Your task to perform on an android device: Go to display settings Image 0: 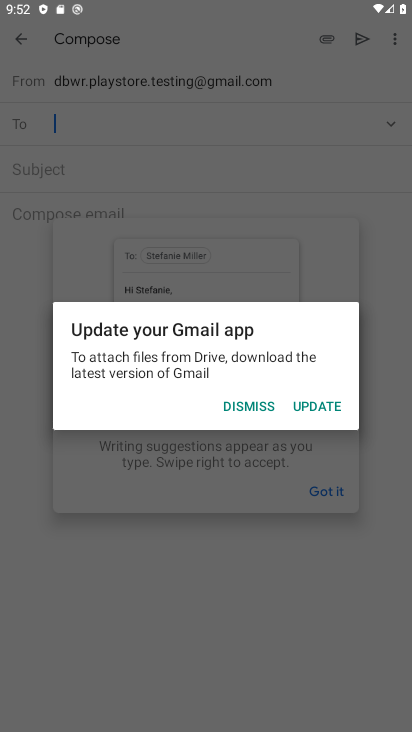
Step 0: press home button
Your task to perform on an android device: Go to display settings Image 1: 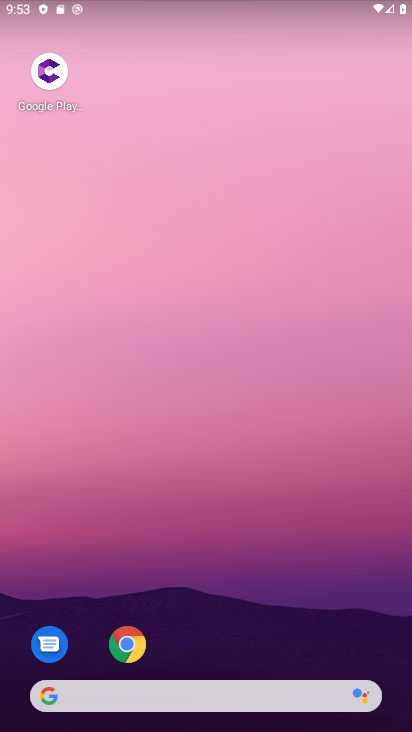
Step 1: drag from (202, 627) to (339, 156)
Your task to perform on an android device: Go to display settings Image 2: 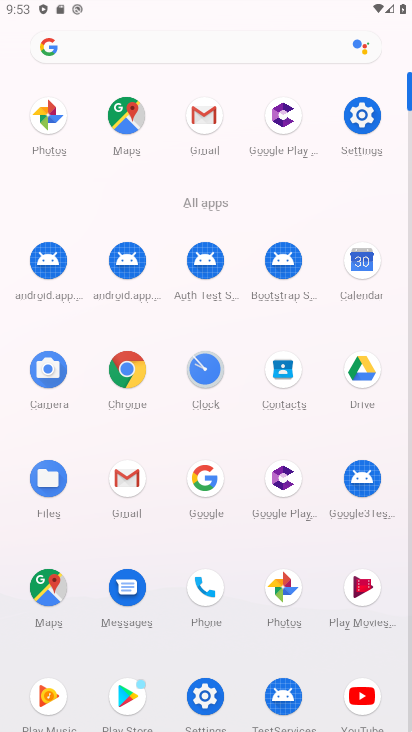
Step 2: click (364, 126)
Your task to perform on an android device: Go to display settings Image 3: 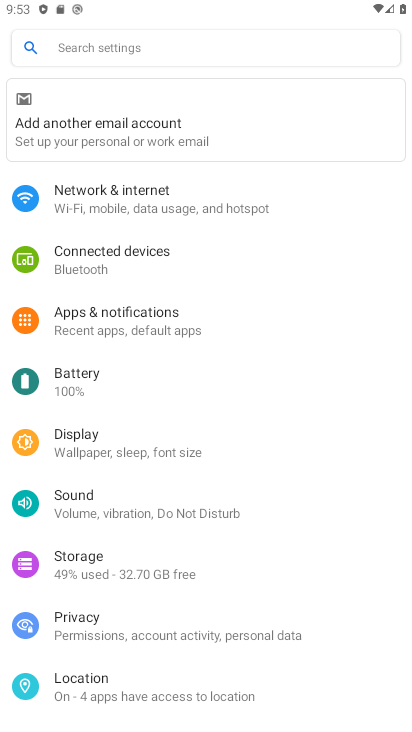
Step 3: click (73, 442)
Your task to perform on an android device: Go to display settings Image 4: 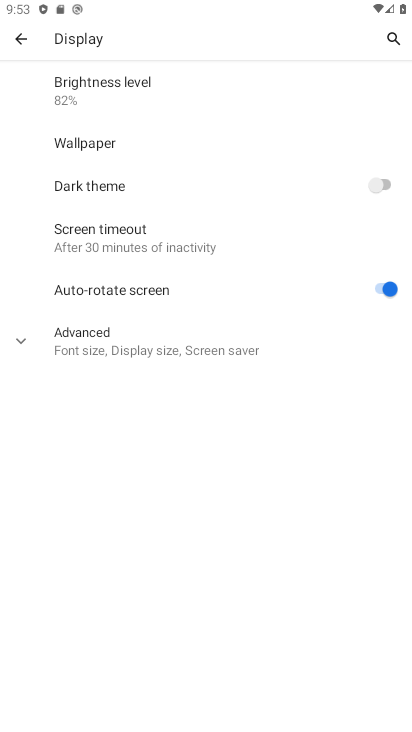
Step 4: task complete